Your task to perform on an android device: Go to Yahoo.com Image 0: 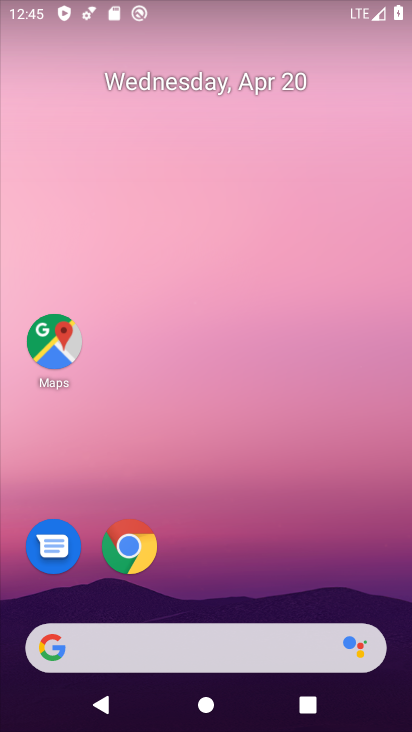
Step 0: click (137, 574)
Your task to perform on an android device: Go to Yahoo.com Image 1: 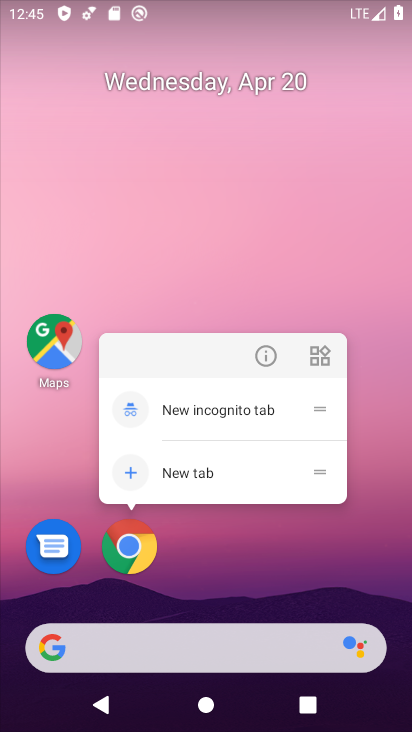
Step 1: click (146, 563)
Your task to perform on an android device: Go to Yahoo.com Image 2: 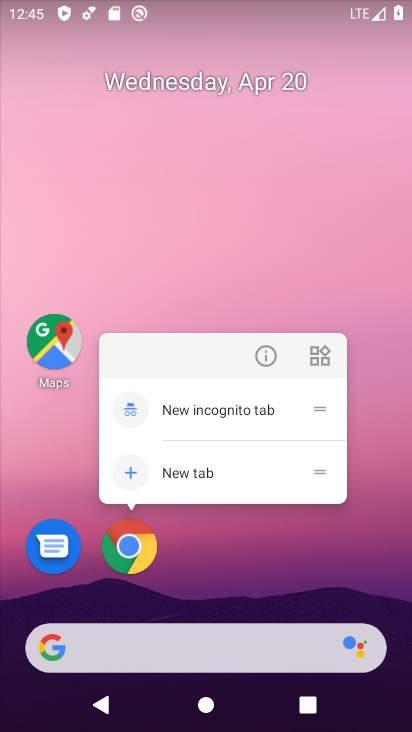
Step 2: click (137, 558)
Your task to perform on an android device: Go to Yahoo.com Image 3: 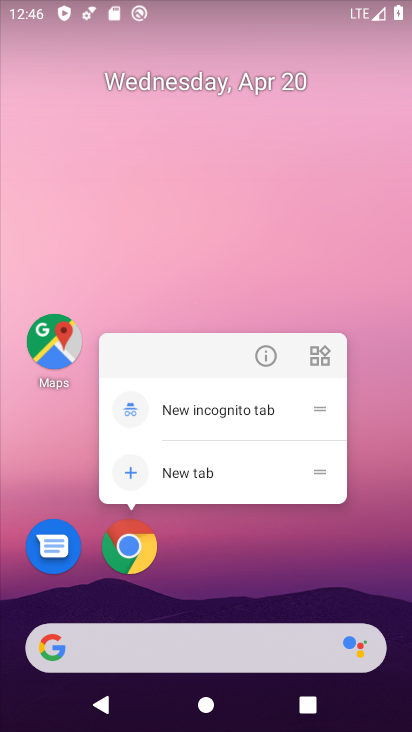
Step 3: click (123, 559)
Your task to perform on an android device: Go to Yahoo.com Image 4: 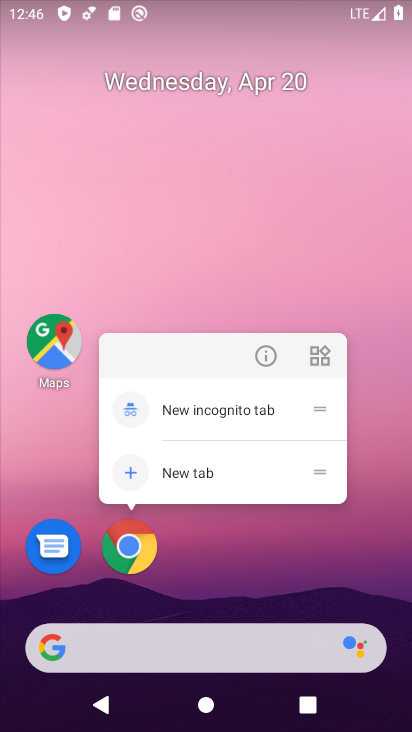
Step 4: click (125, 557)
Your task to perform on an android device: Go to Yahoo.com Image 5: 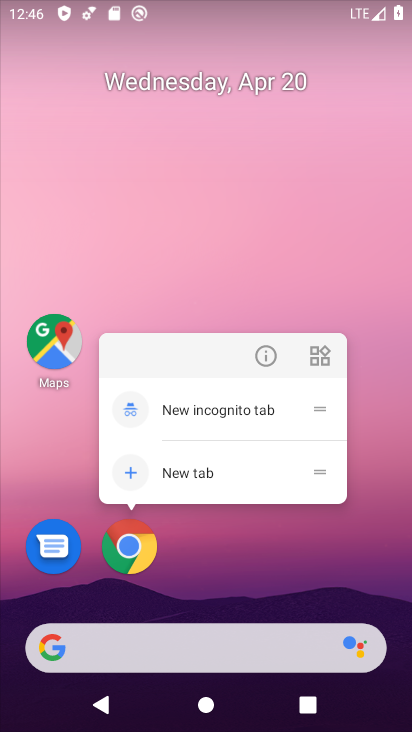
Step 5: click (136, 549)
Your task to perform on an android device: Go to Yahoo.com Image 6: 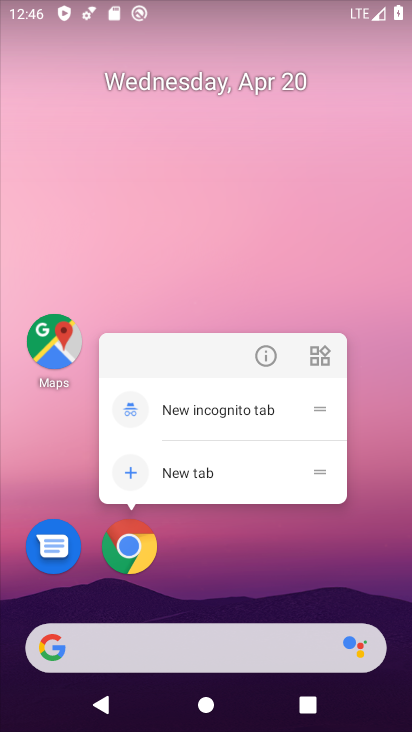
Step 6: click (136, 549)
Your task to perform on an android device: Go to Yahoo.com Image 7: 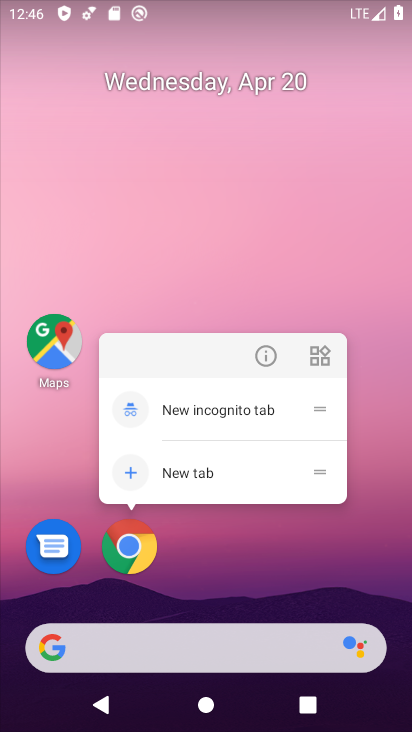
Step 7: click (129, 538)
Your task to perform on an android device: Go to Yahoo.com Image 8: 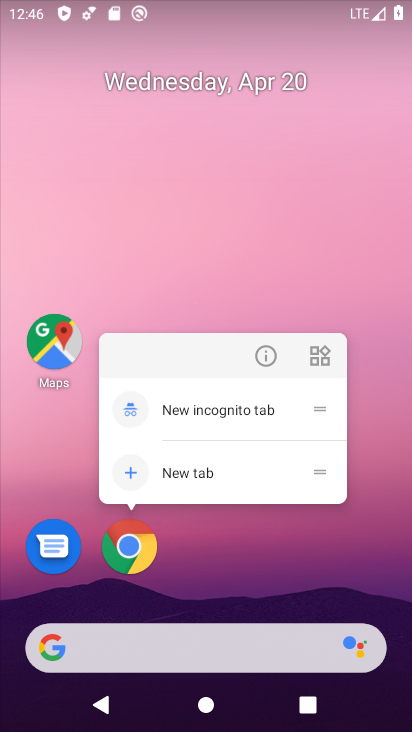
Step 8: click (121, 554)
Your task to perform on an android device: Go to Yahoo.com Image 9: 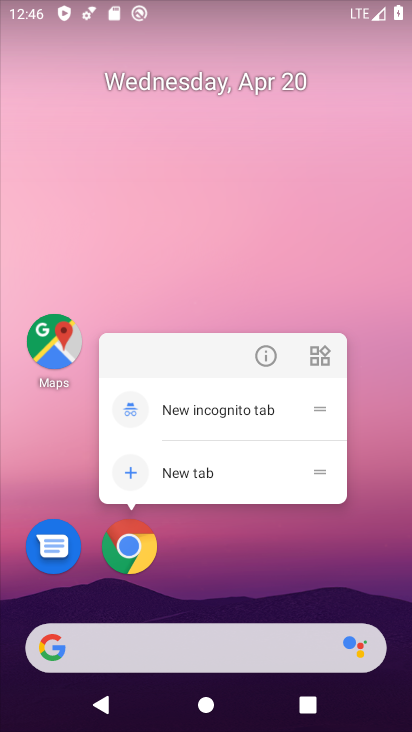
Step 9: click (121, 554)
Your task to perform on an android device: Go to Yahoo.com Image 10: 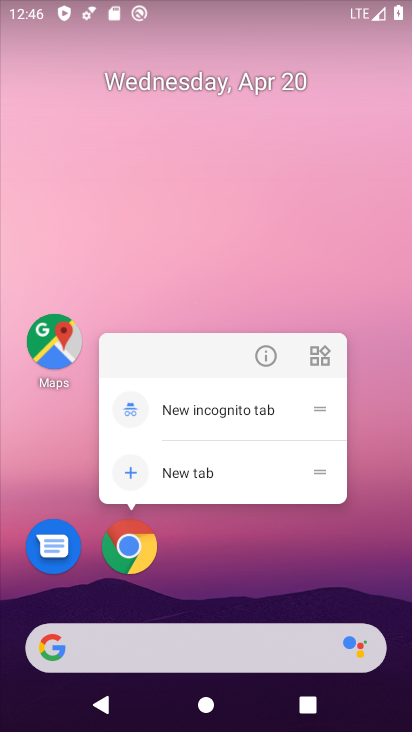
Step 10: click (140, 562)
Your task to perform on an android device: Go to Yahoo.com Image 11: 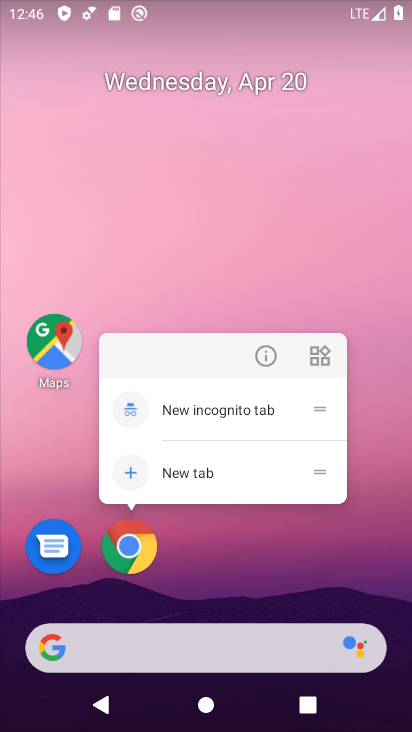
Step 11: click (140, 562)
Your task to perform on an android device: Go to Yahoo.com Image 12: 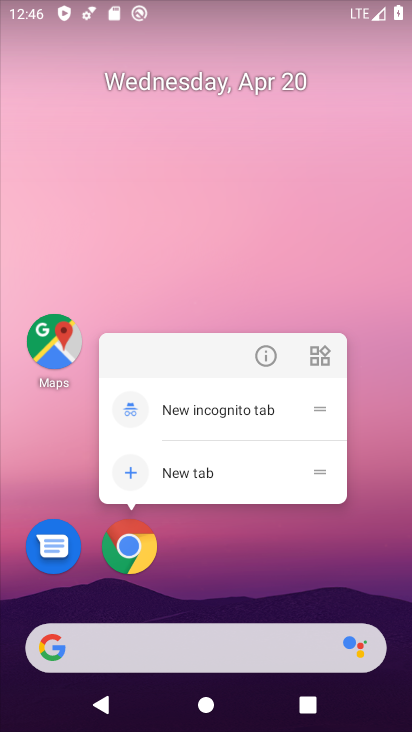
Step 12: click (141, 558)
Your task to perform on an android device: Go to Yahoo.com Image 13: 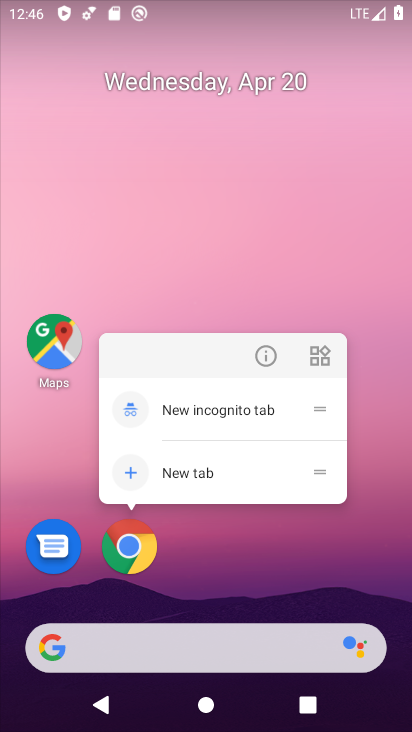
Step 13: click (139, 554)
Your task to perform on an android device: Go to Yahoo.com Image 14: 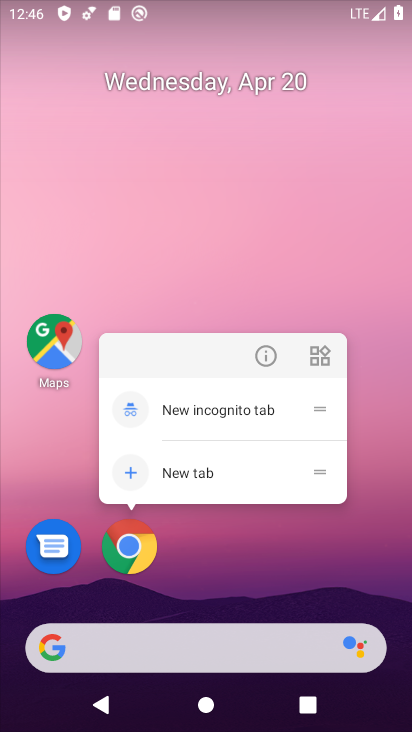
Step 14: click (134, 545)
Your task to perform on an android device: Go to Yahoo.com Image 15: 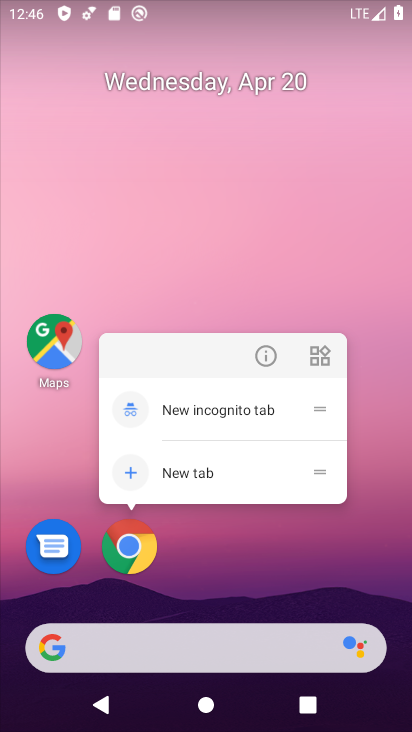
Step 15: click (127, 546)
Your task to perform on an android device: Go to Yahoo.com Image 16: 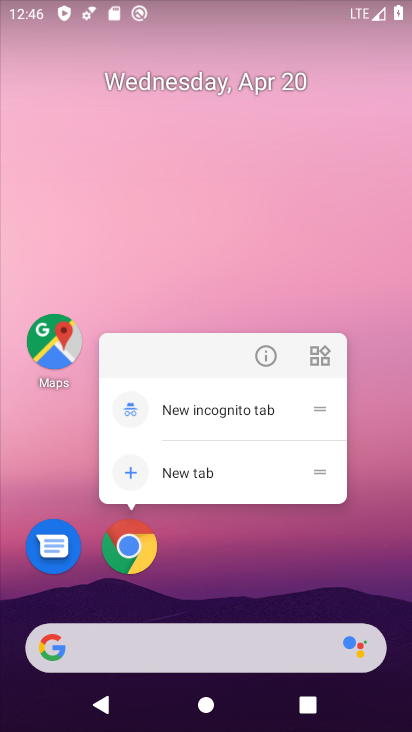
Step 16: drag from (329, 611) to (408, 245)
Your task to perform on an android device: Go to Yahoo.com Image 17: 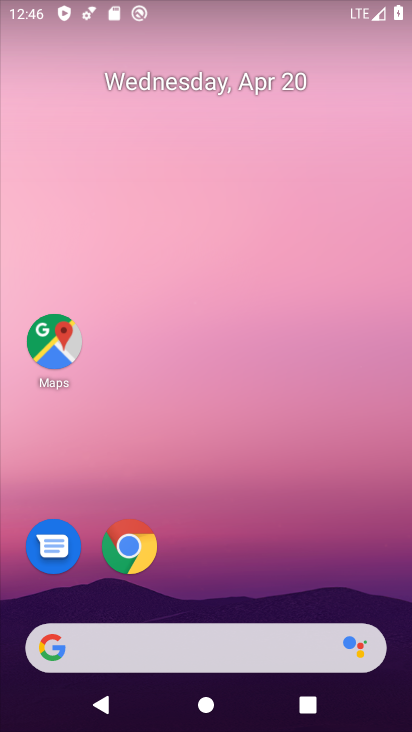
Step 17: drag from (228, 623) to (368, 85)
Your task to perform on an android device: Go to Yahoo.com Image 18: 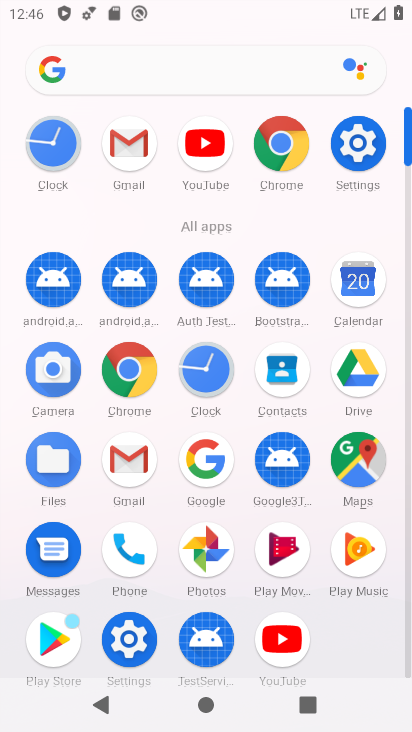
Step 18: click (126, 370)
Your task to perform on an android device: Go to Yahoo.com Image 19: 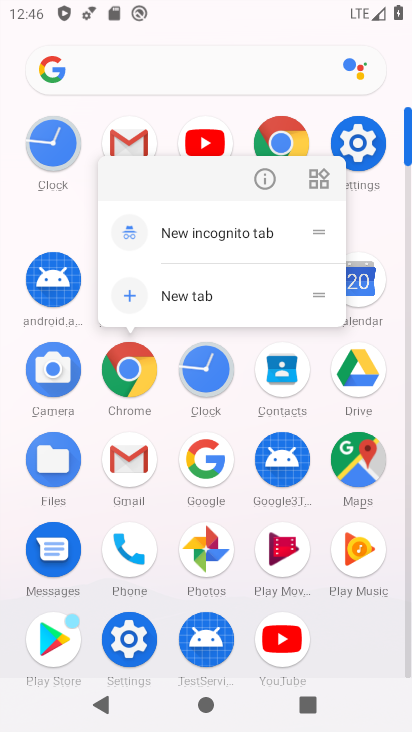
Step 19: click (135, 384)
Your task to perform on an android device: Go to Yahoo.com Image 20: 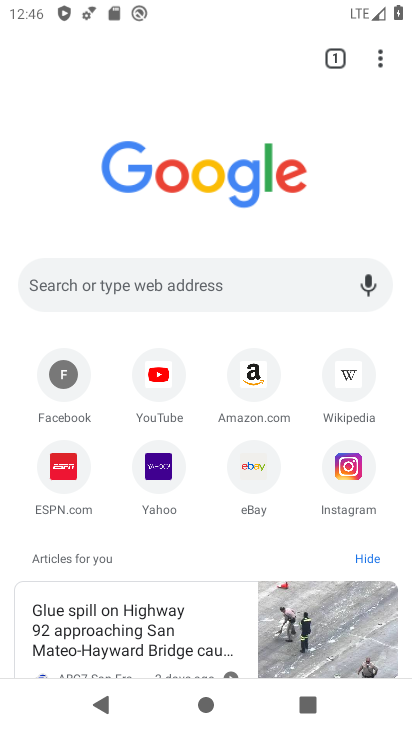
Step 20: click (169, 471)
Your task to perform on an android device: Go to Yahoo.com Image 21: 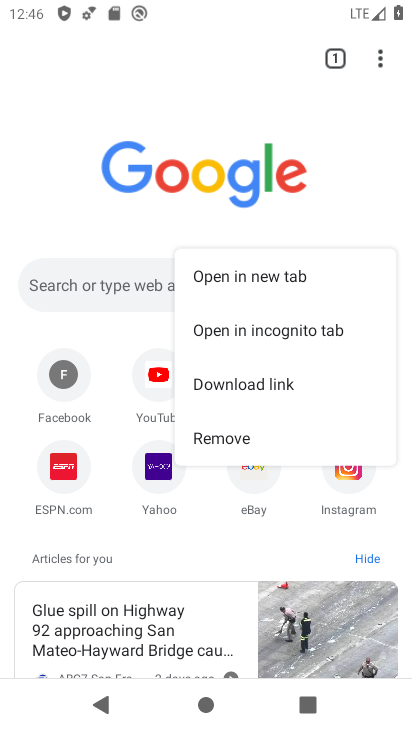
Step 21: click (157, 464)
Your task to perform on an android device: Go to Yahoo.com Image 22: 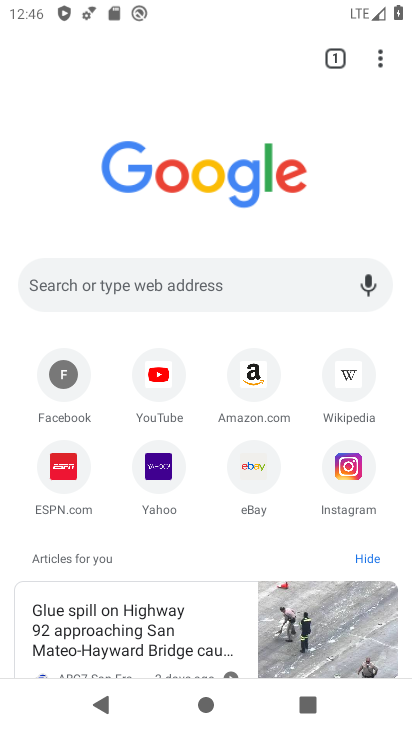
Step 22: click (156, 465)
Your task to perform on an android device: Go to Yahoo.com Image 23: 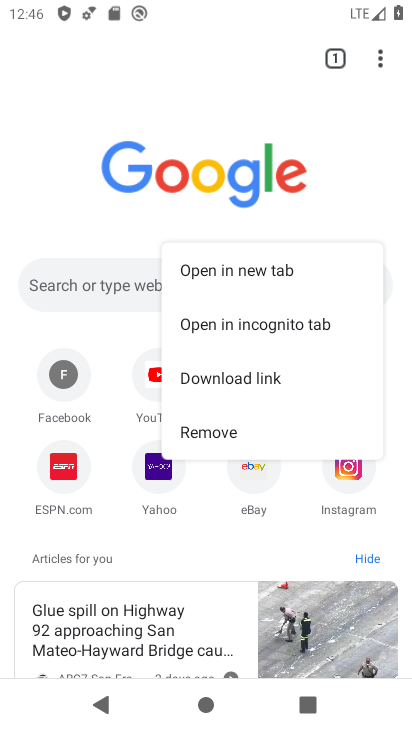
Step 23: click (146, 476)
Your task to perform on an android device: Go to Yahoo.com Image 24: 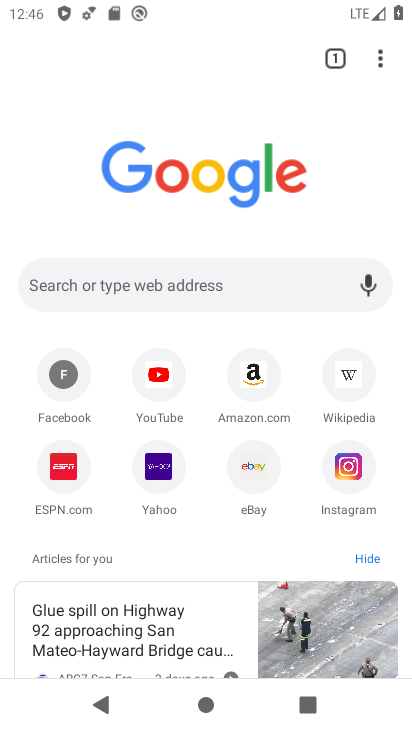
Step 24: click (161, 463)
Your task to perform on an android device: Go to Yahoo.com Image 25: 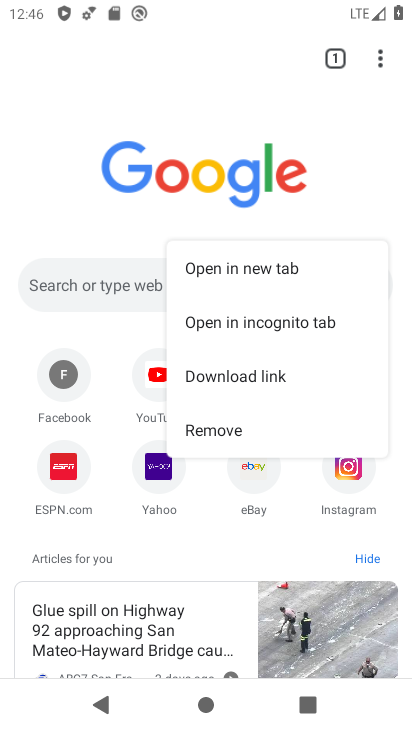
Step 25: click (161, 462)
Your task to perform on an android device: Go to Yahoo.com Image 26: 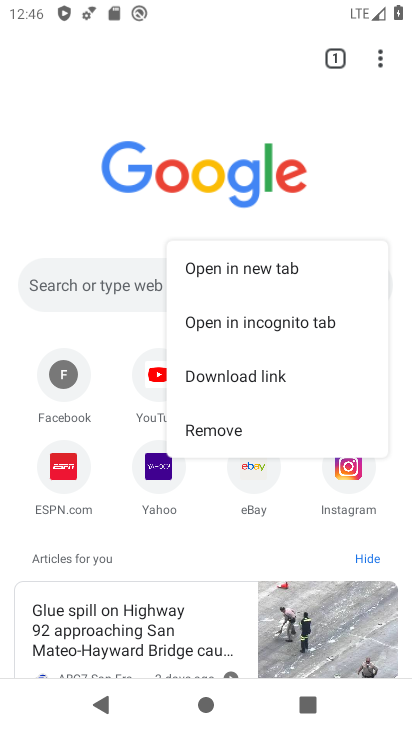
Step 26: click (150, 458)
Your task to perform on an android device: Go to Yahoo.com Image 27: 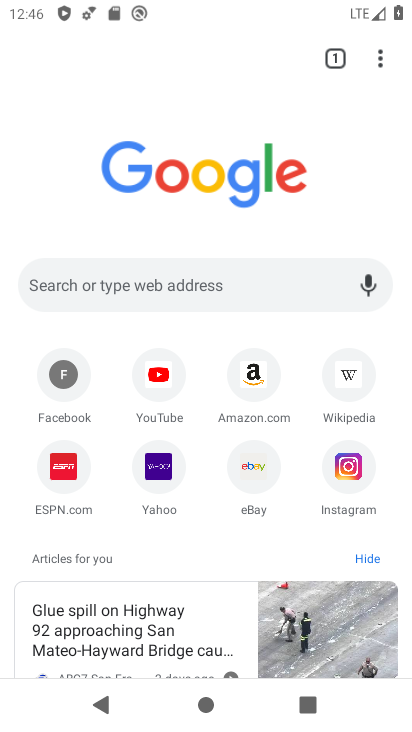
Step 27: click (157, 478)
Your task to perform on an android device: Go to Yahoo.com Image 28: 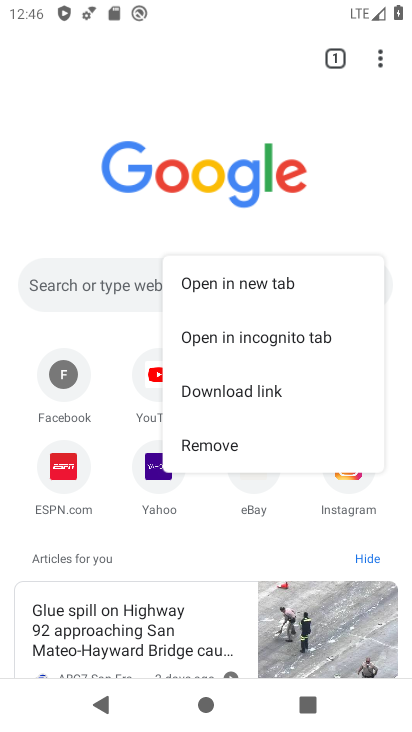
Step 28: click (167, 476)
Your task to perform on an android device: Go to Yahoo.com Image 29: 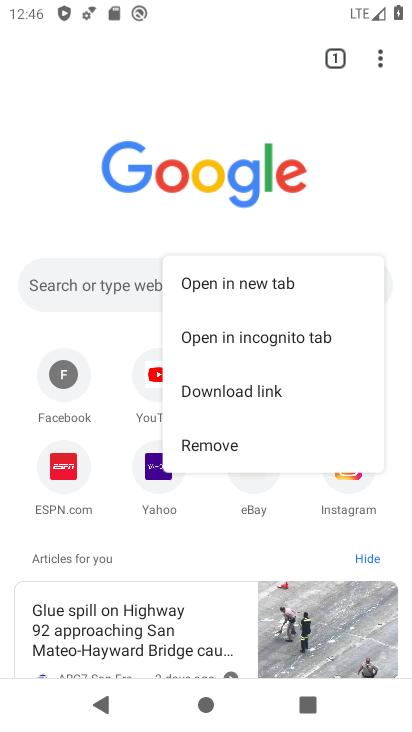
Step 29: click (151, 479)
Your task to perform on an android device: Go to Yahoo.com Image 30: 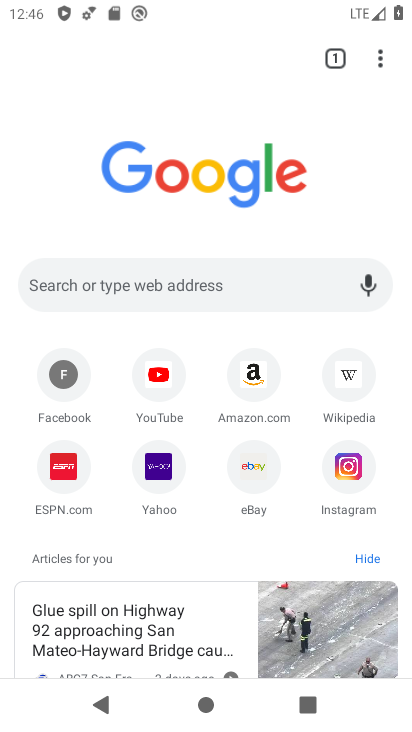
Step 30: click (160, 474)
Your task to perform on an android device: Go to Yahoo.com Image 31: 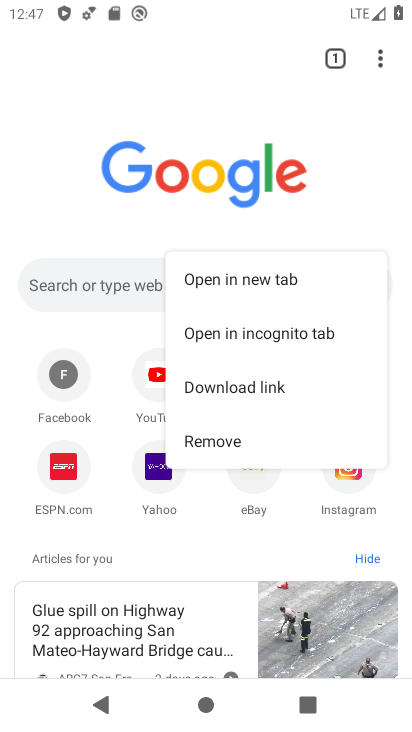
Step 31: click (143, 479)
Your task to perform on an android device: Go to Yahoo.com Image 32: 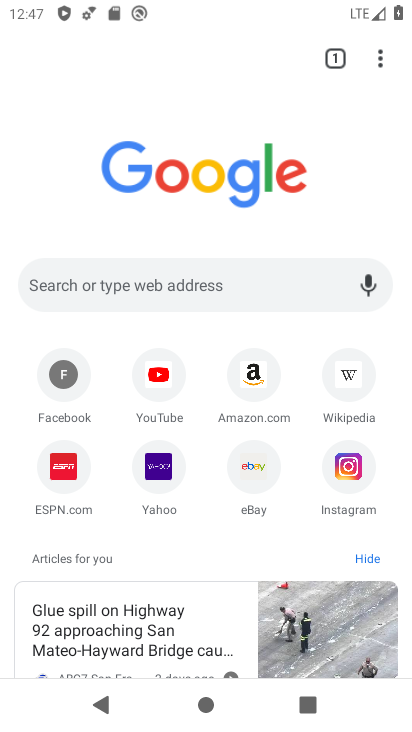
Step 32: click (163, 472)
Your task to perform on an android device: Go to Yahoo.com Image 33: 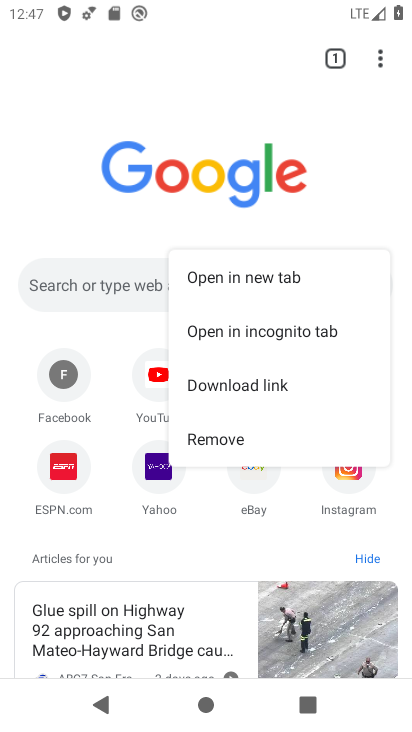
Step 33: click (163, 472)
Your task to perform on an android device: Go to Yahoo.com Image 34: 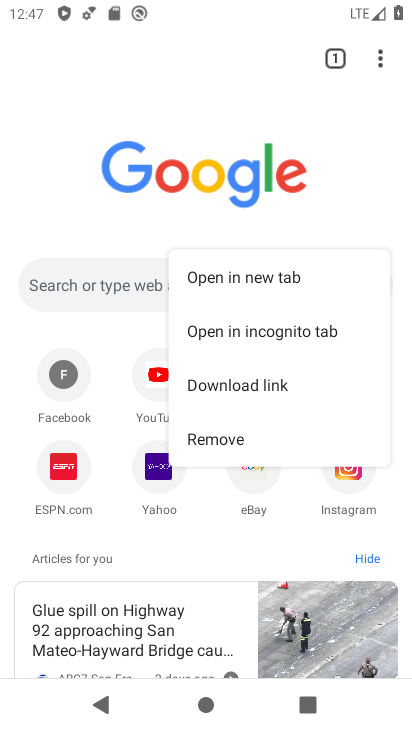
Step 34: click (145, 472)
Your task to perform on an android device: Go to Yahoo.com Image 35: 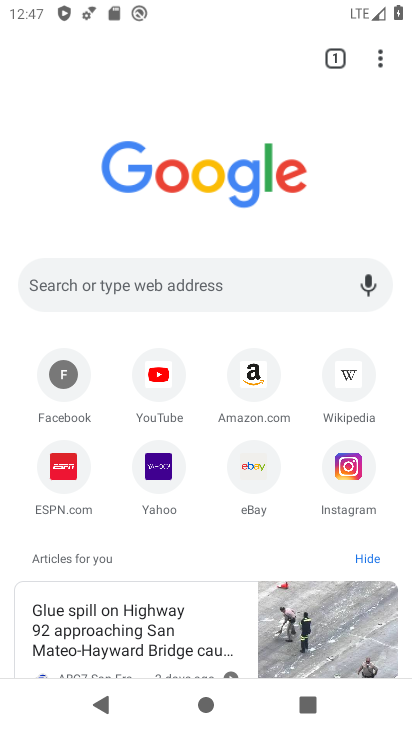
Step 35: click (151, 471)
Your task to perform on an android device: Go to Yahoo.com Image 36: 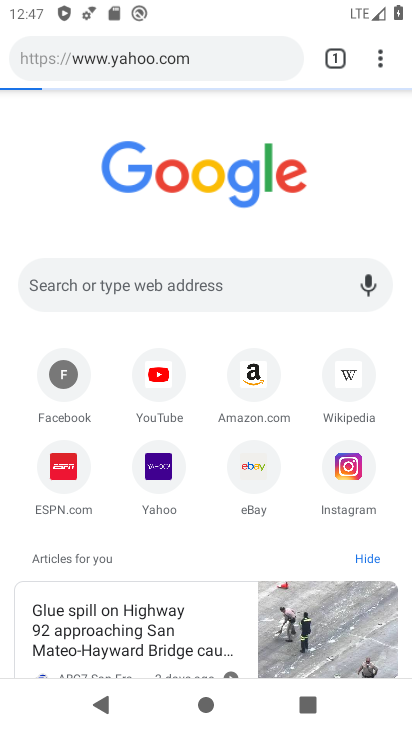
Step 36: click (152, 472)
Your task to perform on an android device: Go to Yahoo.com Image 37: 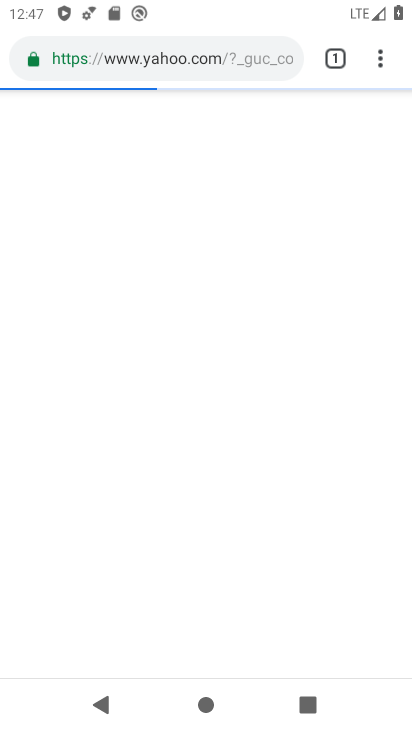
Step 37: click (153, 473)
Your task to perform on an android device: Go to Yahoo.com Image 38: 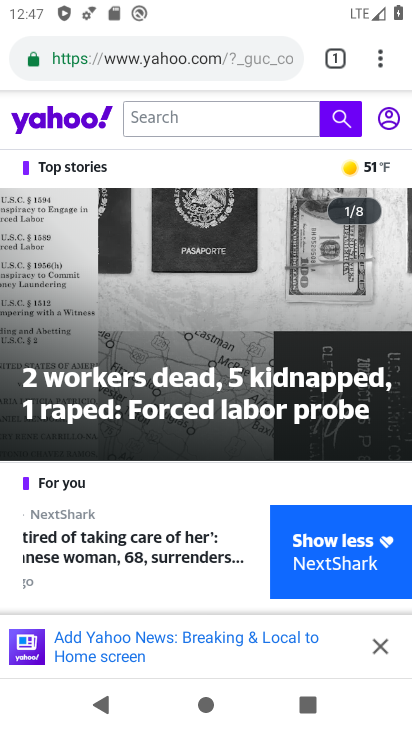
Step 38: task complete